Your task to perform on an android device: Go to accessibility settings Image 0: 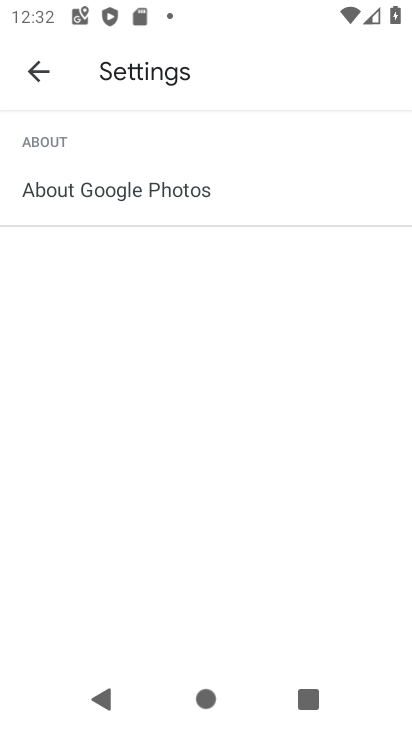
Step 0: press home button
Your task to perform on an android device: Go to accessibility settings Image 1: 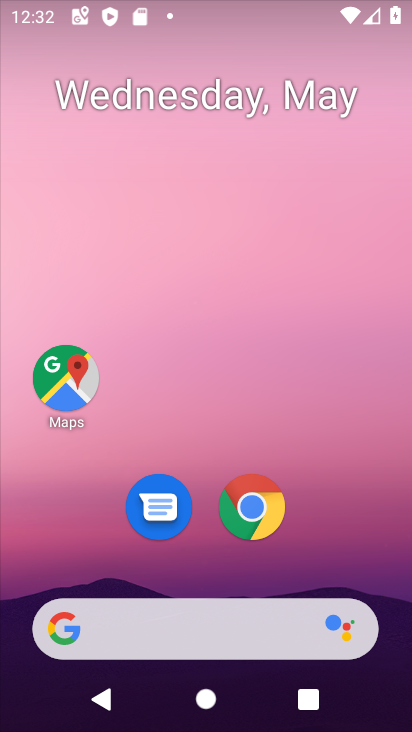
Step 1: drag from (283, 406) to (298, 236)
Your task to perform on an android device: Go to accessibility settings Image 2: 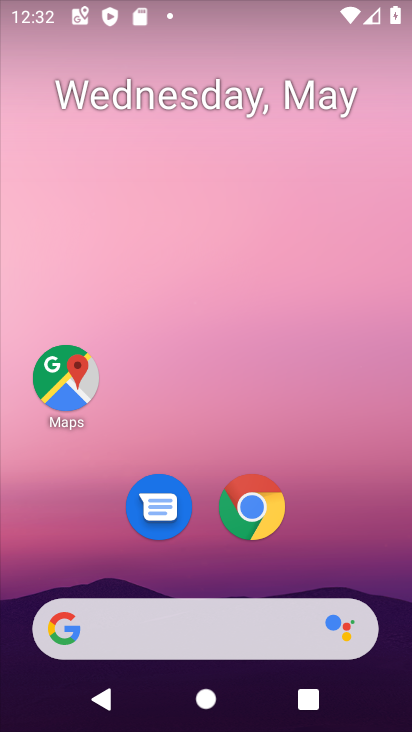
Step 2: drag from (252, 474) to (289, 221)
Your task to perform on an android device: Go to accessibility settings Image 3: 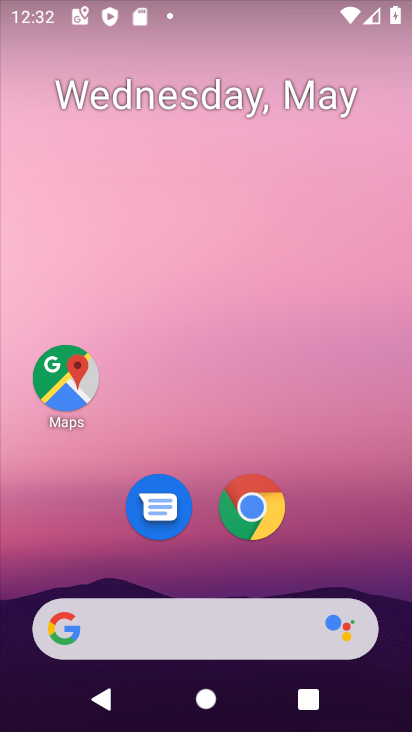
Step 3: drag from (226, 575) to (289, 257)
Your task to perform on an android device: Go to accessibility settings Image 4: 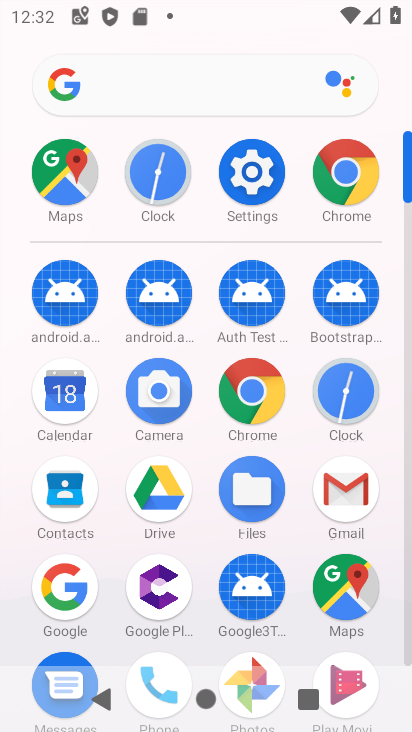
Step 4: click (256, 168)
Your task to perform on an android device: Go to accessibility settings Image 5: 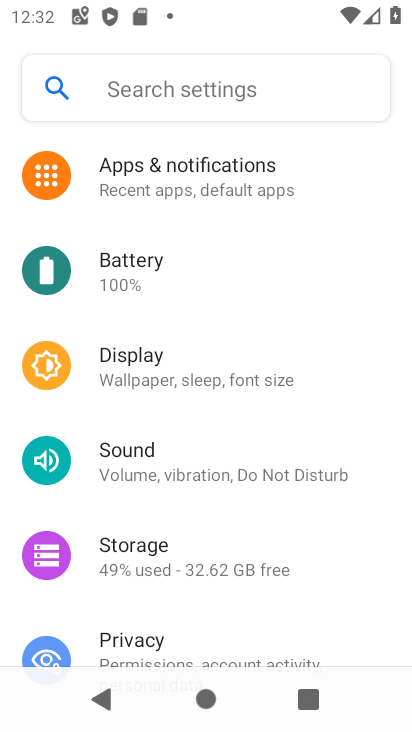
Step 5: drag from (214, 601) to (293, 115)
Your task to perform on an android device: Go to accessibility settings Image 6: 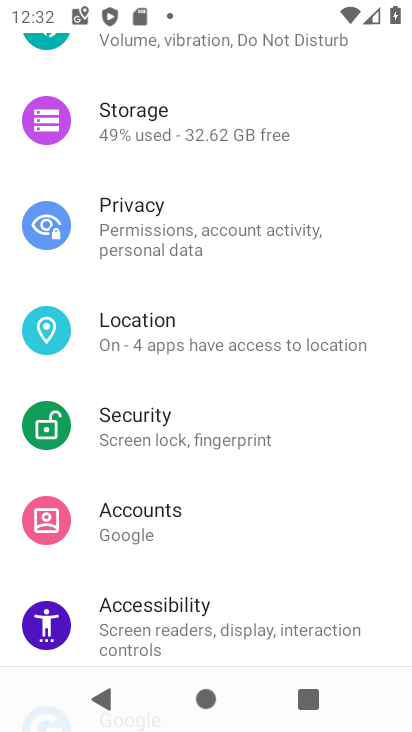
Step 6: click (184, 618)
Your task to perform on an android device: Go to accessibility settings Image 7: 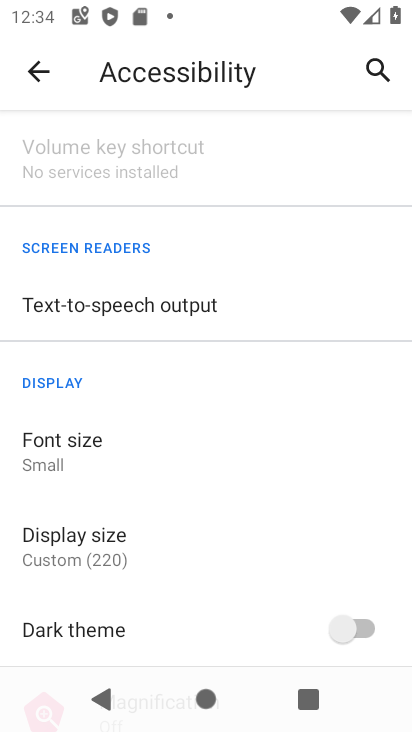
Step 7: task complete